Your task to perform on an android device: install app "Google Photos" Image 0: 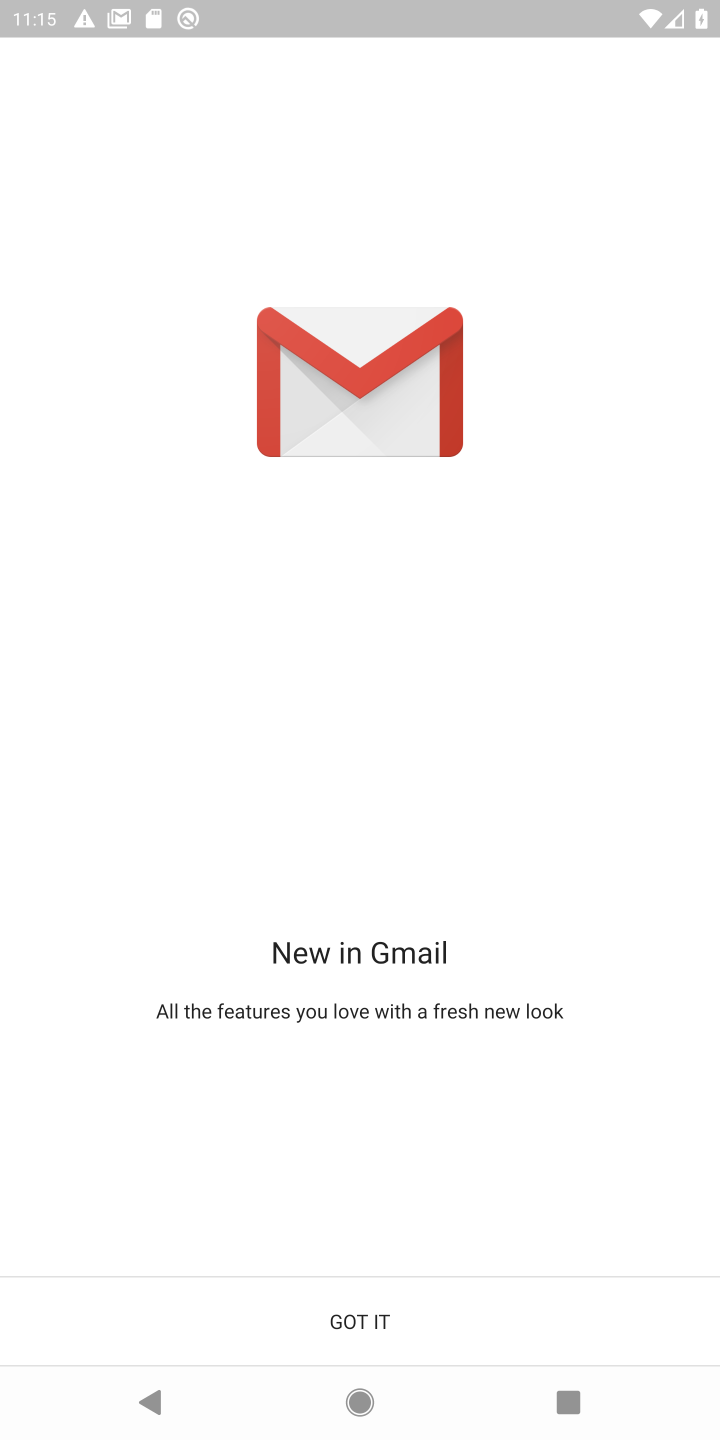
Step 0: press back button
Your task to perform on an android device: install app "Google Photos" Image 1: 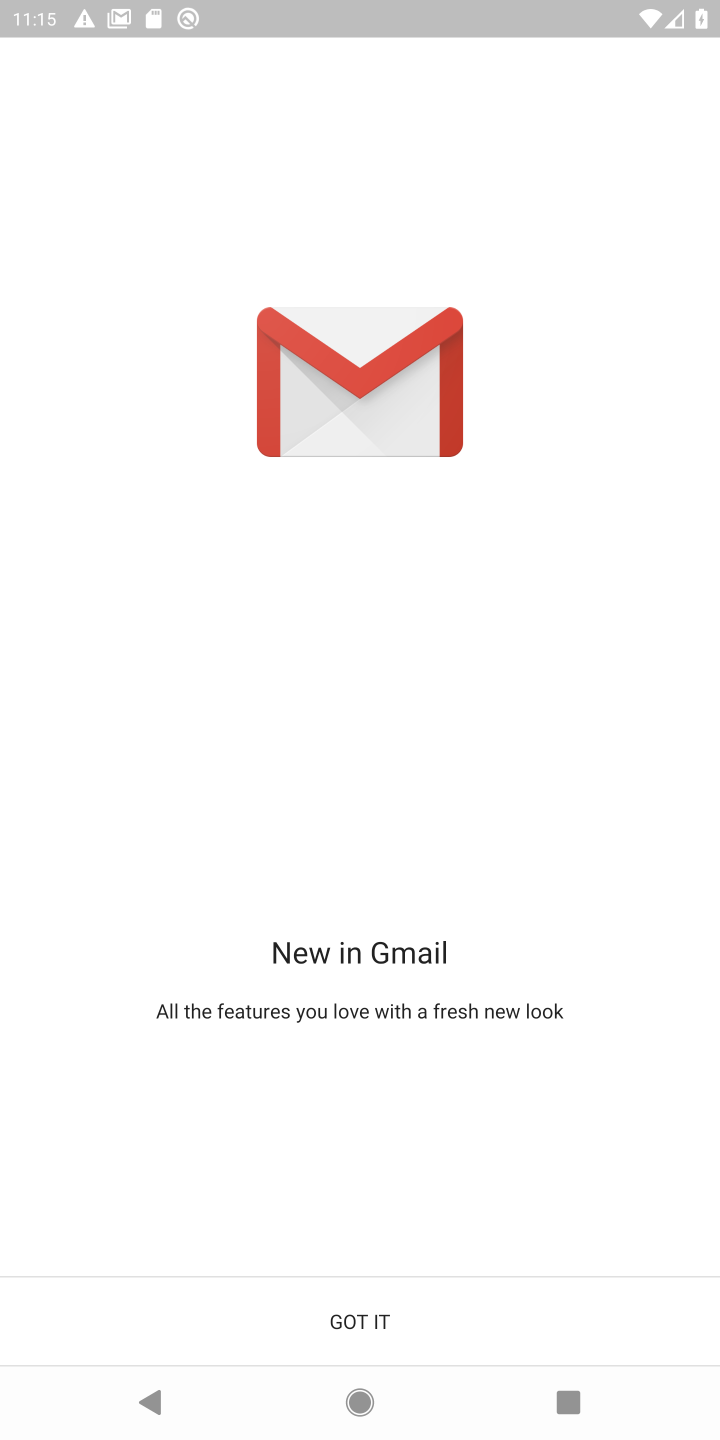
Step 1: press back button
Your task to perform on an android device: install app "Google Photos" Image 2: 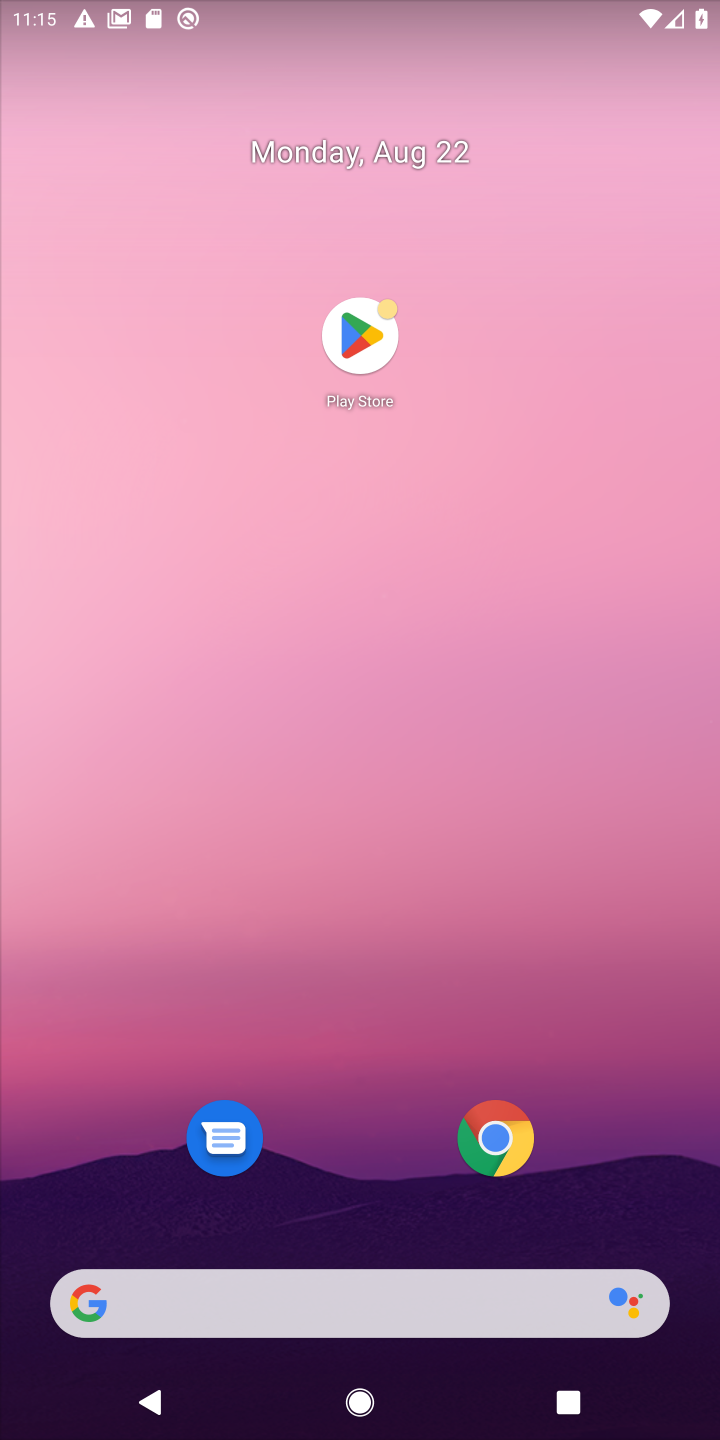
Step 2: press back button
Your task to perform on an android device: install app "Google Photos" Image 3: 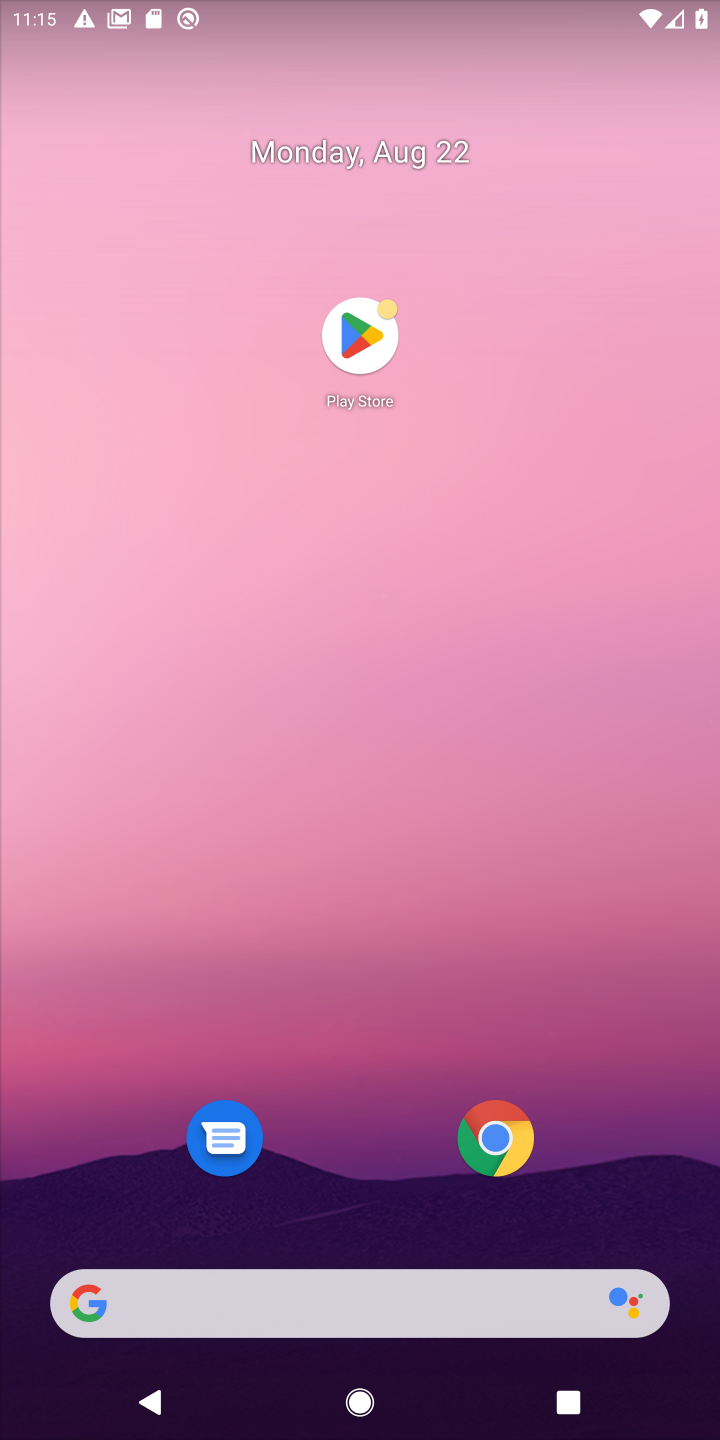
Step 3: press home button
Your task to perform on an android device: install app "Google Photos" Image 4: 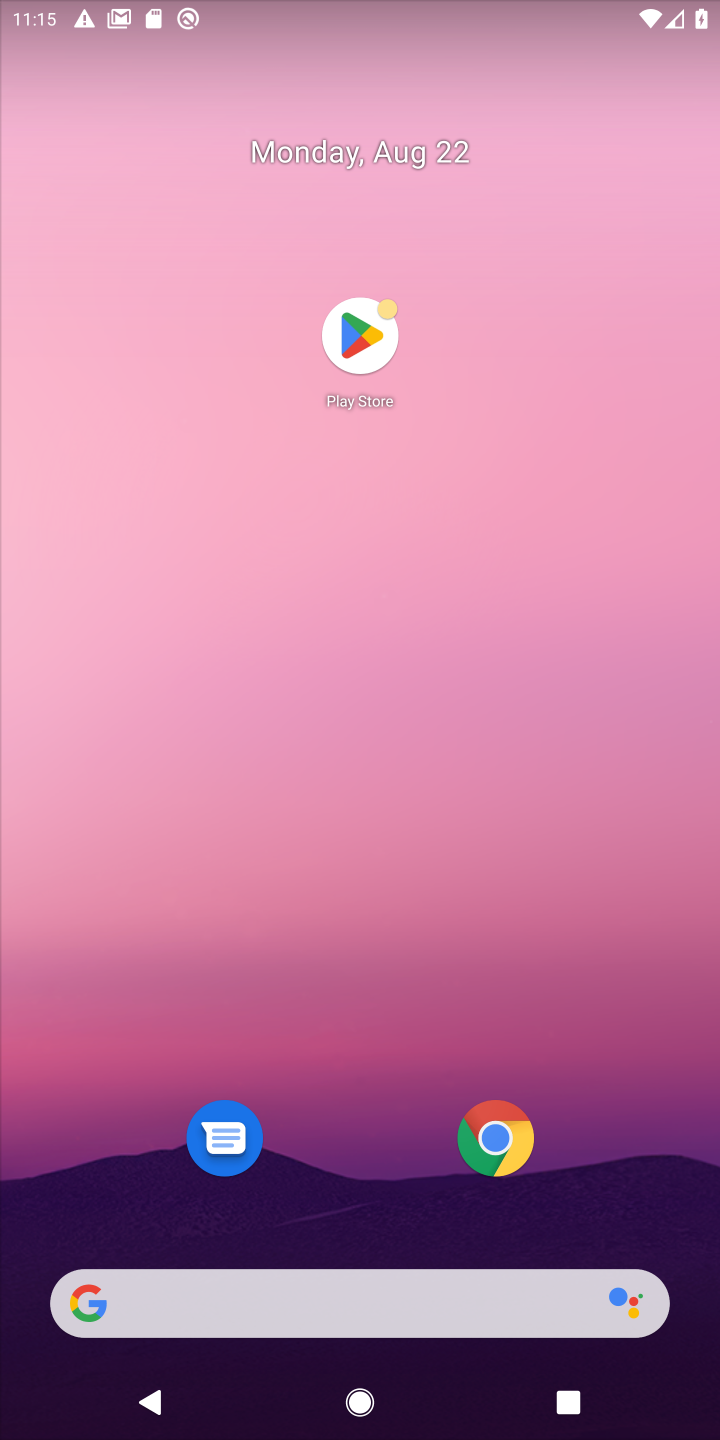
Step 4: click (352, 336)
Your task to perform on an android device: install app "Google Photos" Image 5: 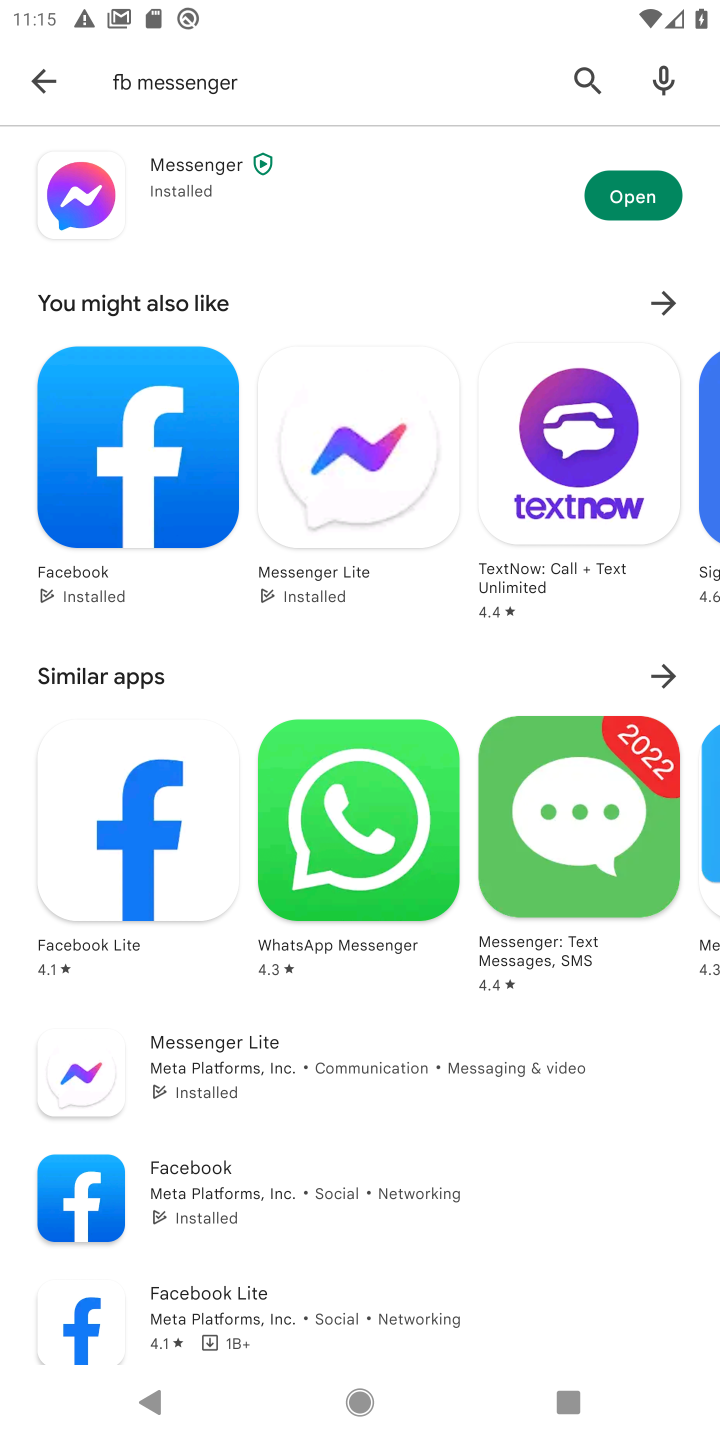
Step 5: click (583, 74)
Your task to perform on an android device: install app "Google Photos" Image 6: 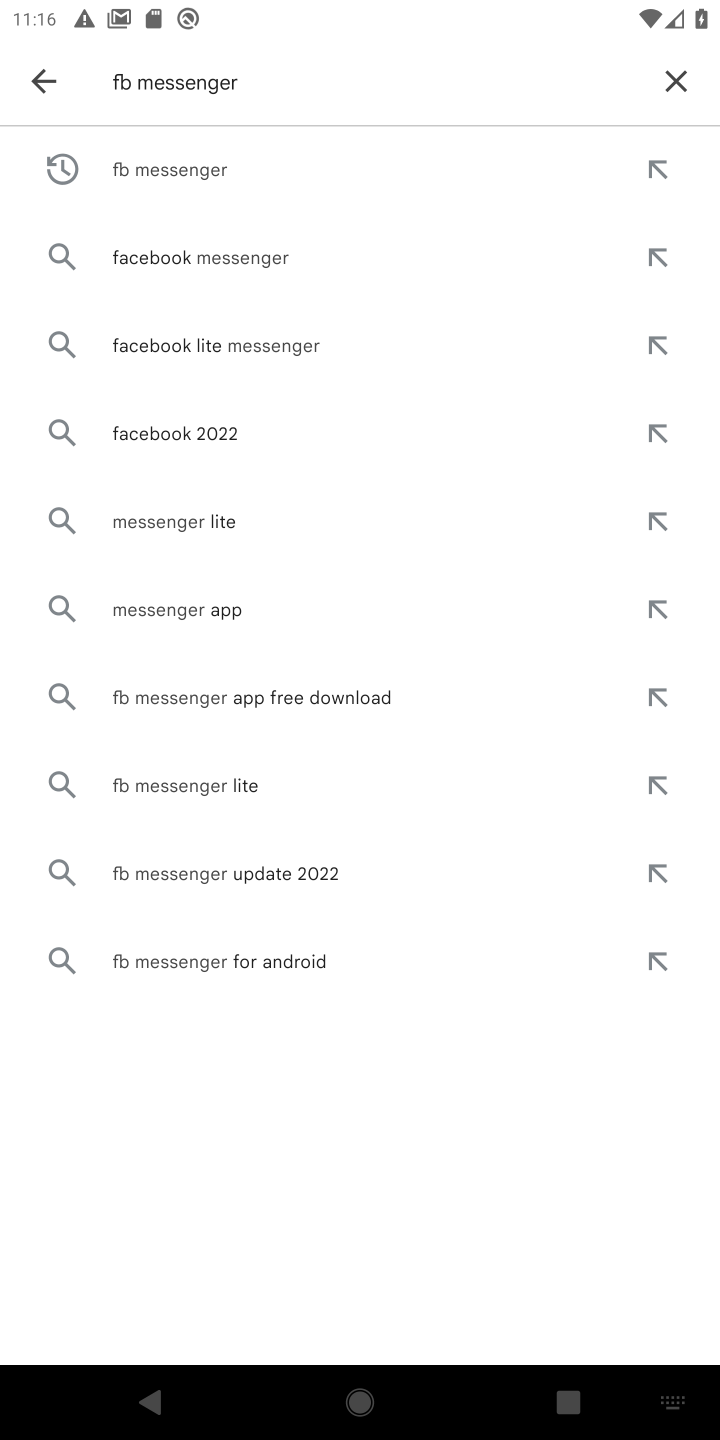
Step 6: click (678, 97)
Your task to perform on an android device: install app "Google Photos" Image 7: 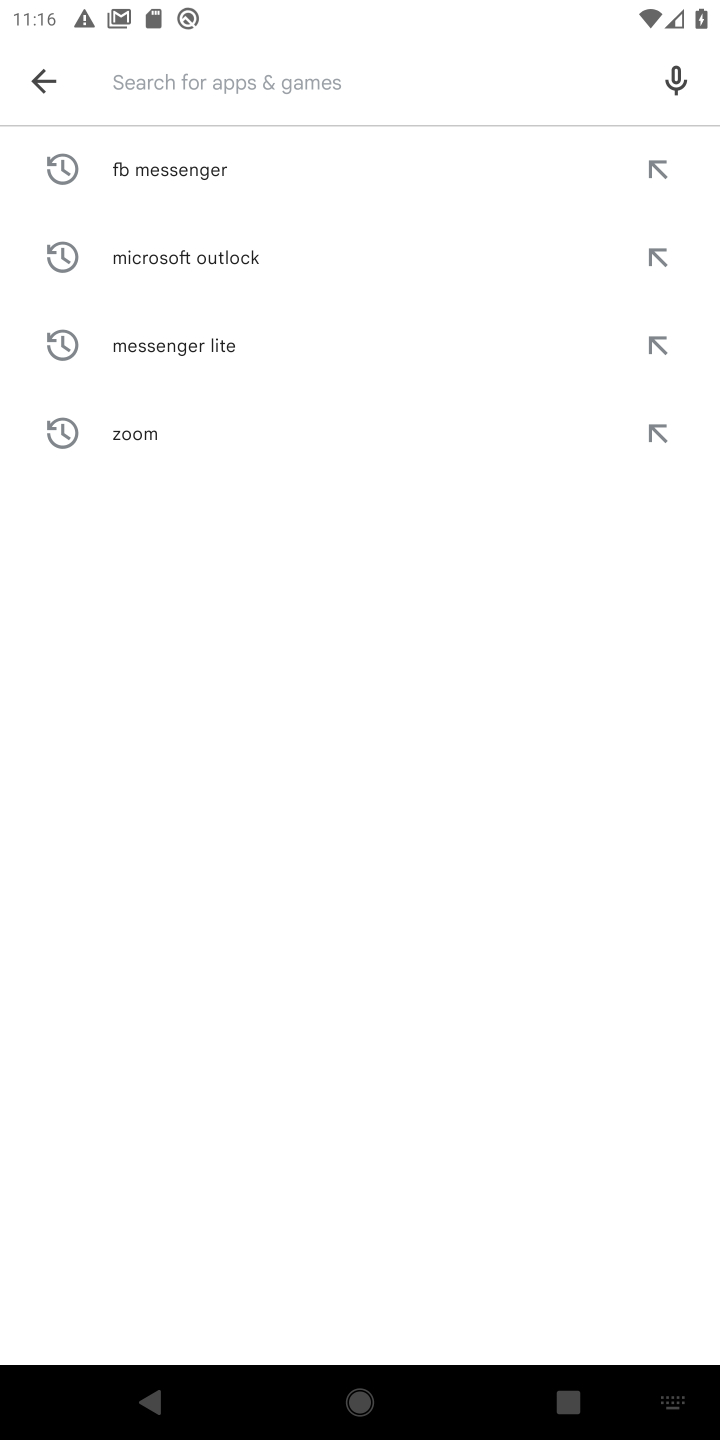
Step 7: type "google phots"
Your task to perform on an android device: install app "Google Photos" Image 8: 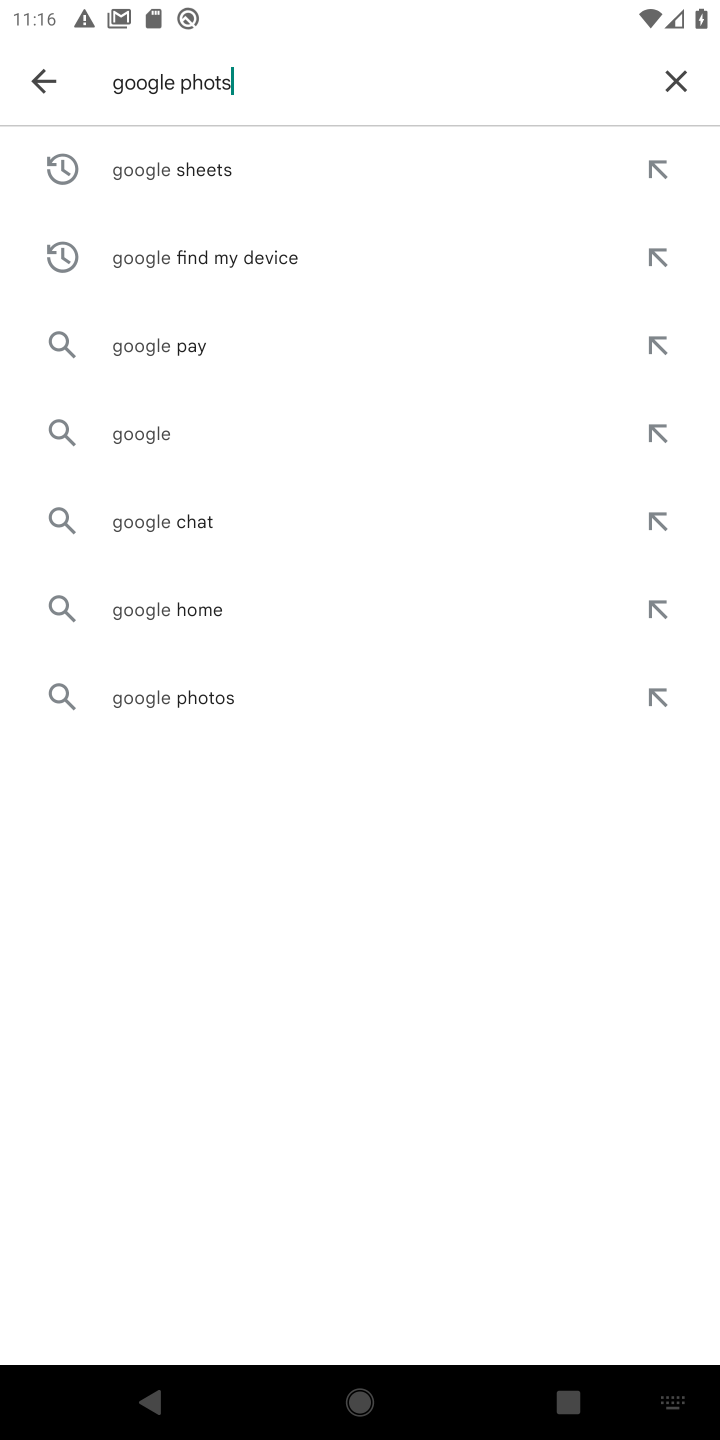
Step 8: type ""
Your task to perform on an android device: install app "Google Photos" Image 9: 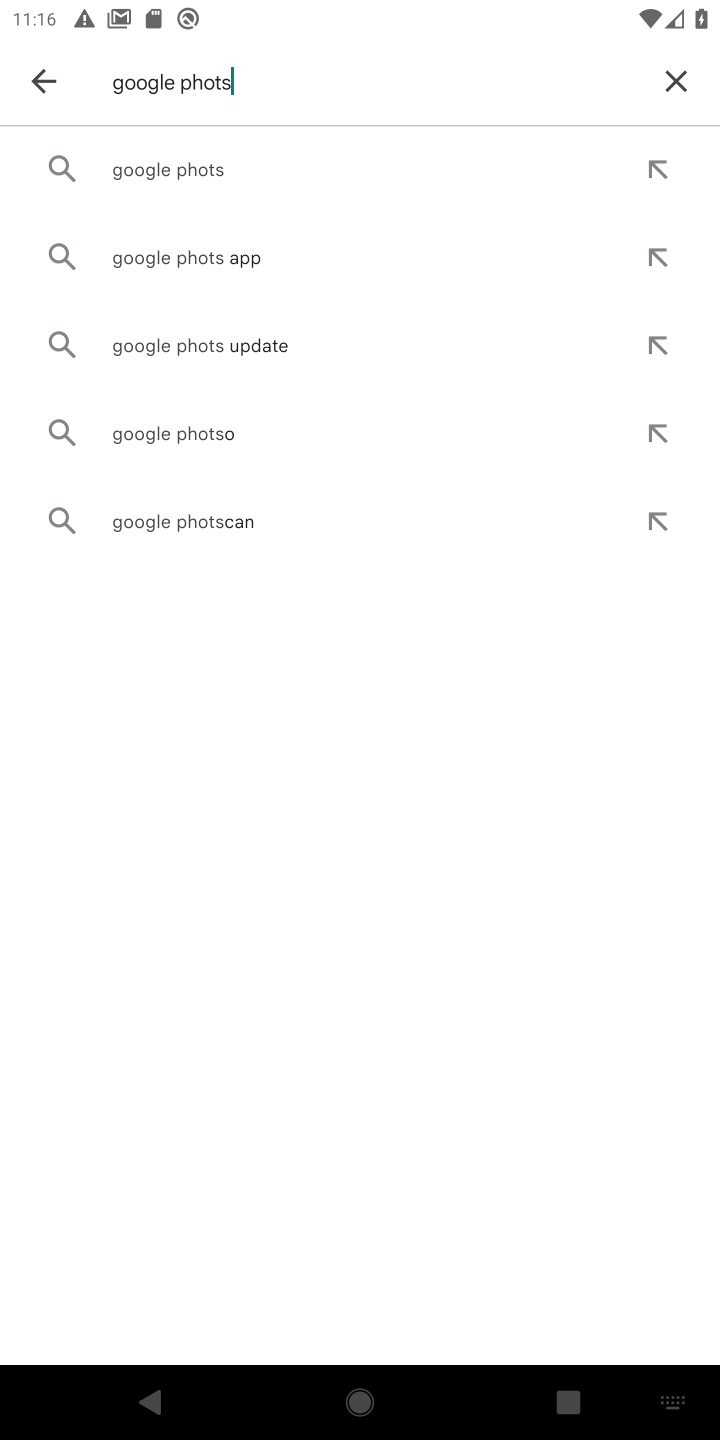
Step 9: click (159, 164)
Your task to perform on an android device: install app "Google Photos" Image 10: 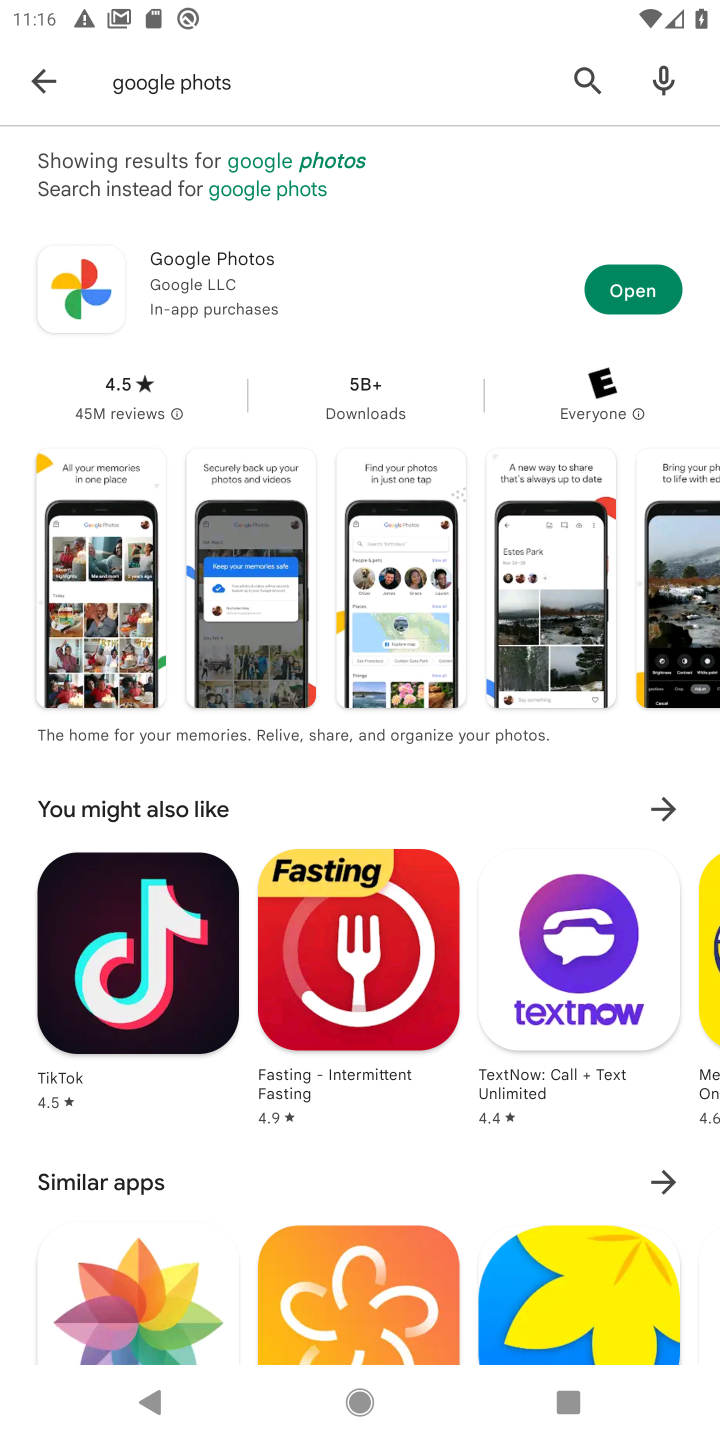
Step 10: task complete